Your task to perform on an android device: allow cookies in the chrome app Image 0: 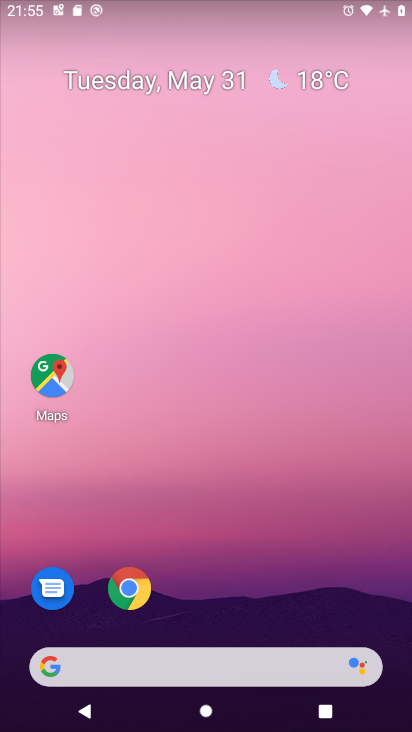
Step 0: click (138, 599)
Your task to perform on an android device: allow cookies in the chrome app Image 1: 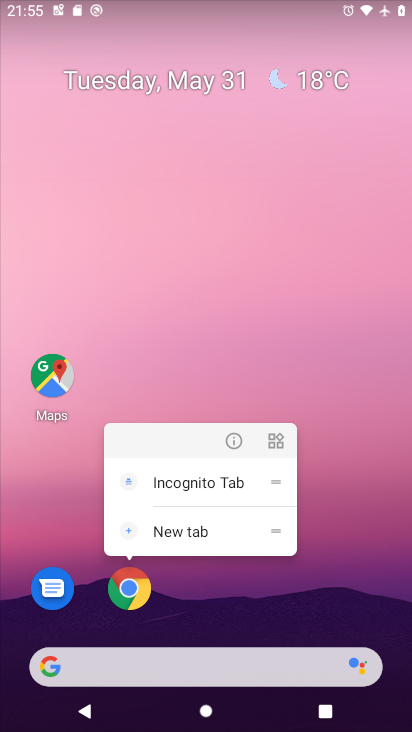
Step 1: click (134, 590)
Your task to perform on an android device: allow cookies in the chrome app Image 2: 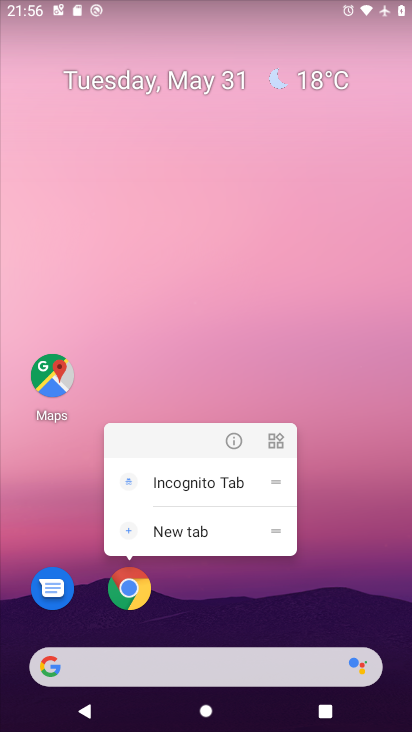
Step 2: click (133, 591)
Your task to perform on an android device: allow cookies in the chrome app Image 3: 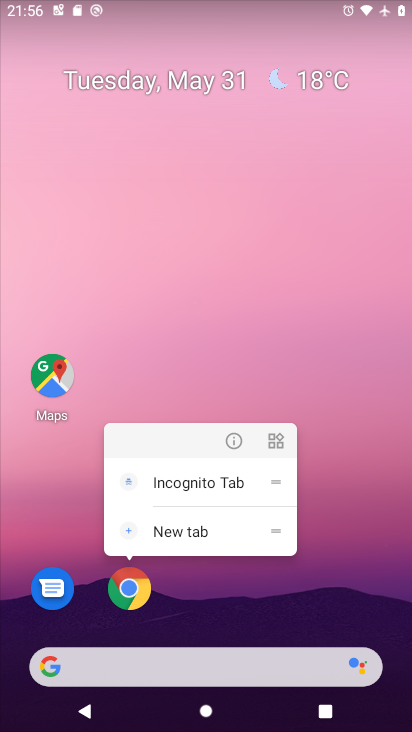
Step 3: click (132, 592)
Your task to perform on an android device: allow cookies in the chrome app Image 4: 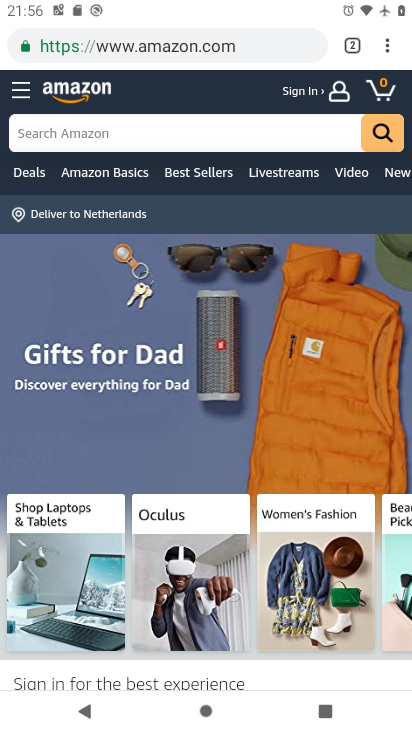
Step 4: drag from (387, 45) to (253, 550)
Your task to perform on an android device: allow cookies in the chrome app Image 5: 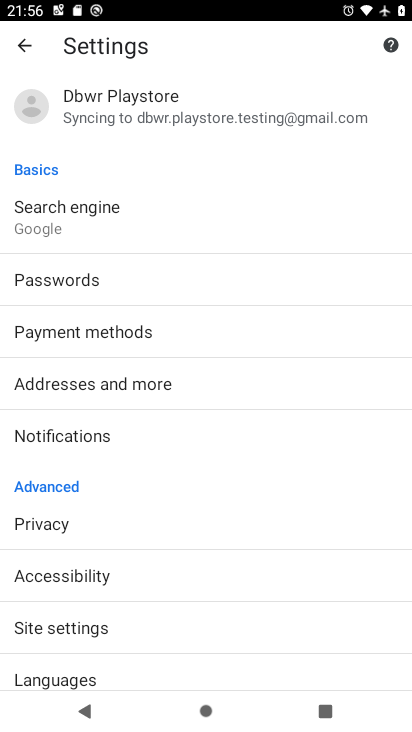
Step 5: click (84, 627)
Your task to perform on an android device: allow cookies in the chrome app Image 6: 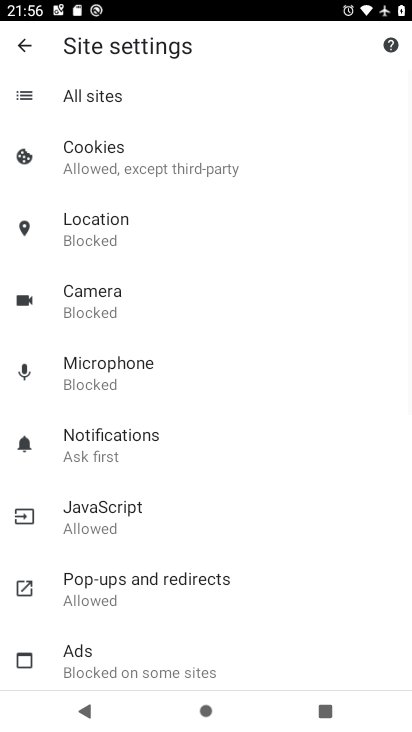
Step 6: click (117, 157)
Your task to perform on an android device: allow cookies in the chrome app Image 7: 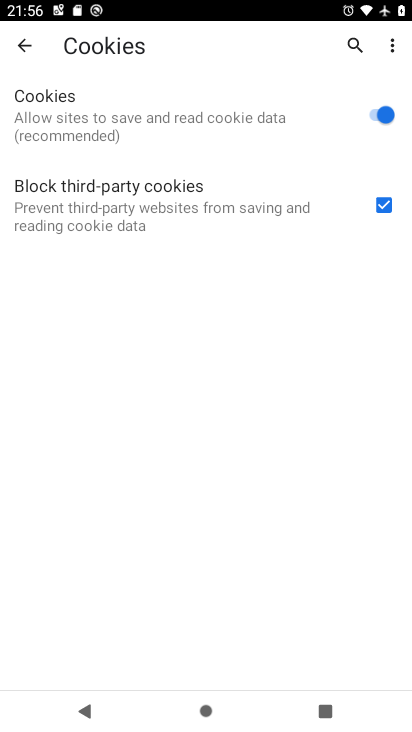
Step 7: task complete